Your task to perform on an android device: change the upload size in google photos Image 0: 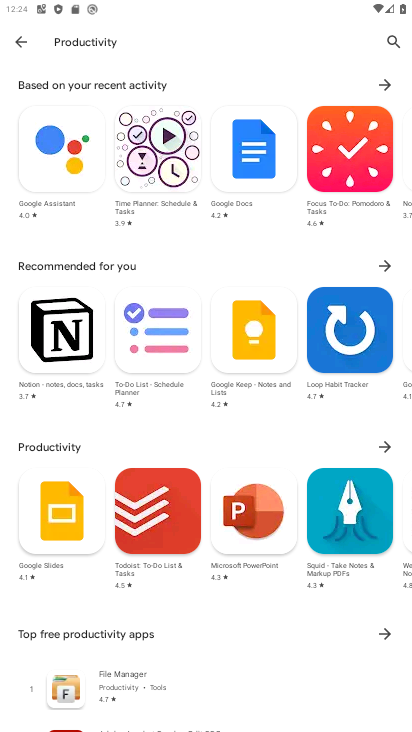
Step 0: press home button
Your task to perform on an android device: change the upload size in google photos Image 1: 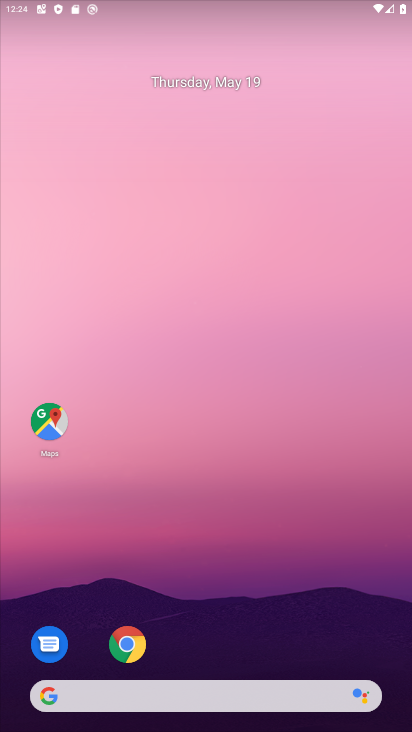
Step 1: drag from (319, 588) to (264, 237)
Your task to perform on an android device: change the upload size in google photos Image 2: 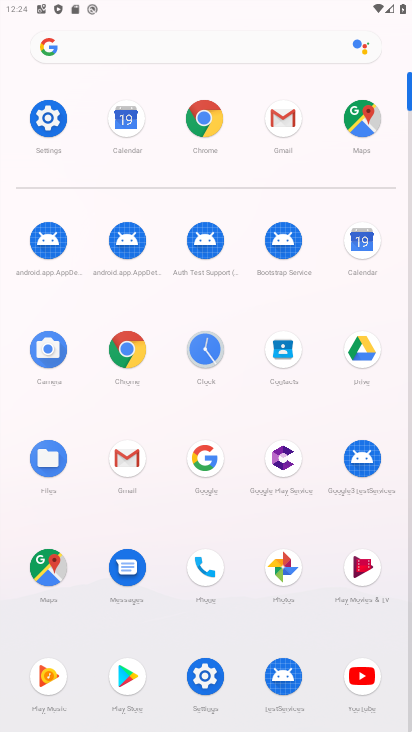
Step 2: click (280, 582)
Your task to perform on an android device: change the upload size in google photos Image 3: 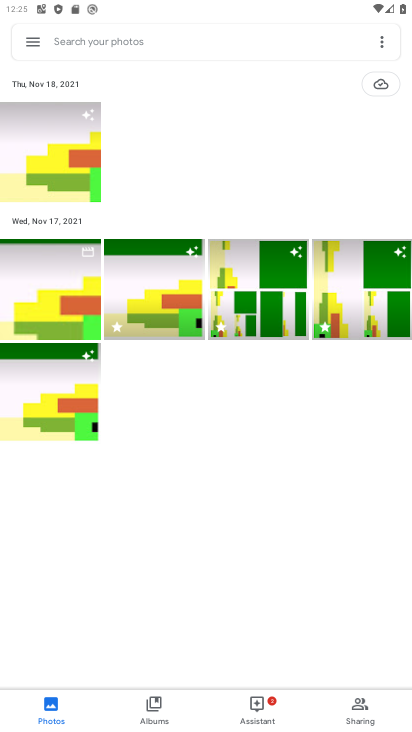
Step 3: click (19, 38)
Your task to perform on an android device: change the upload size in google photos Image 4: 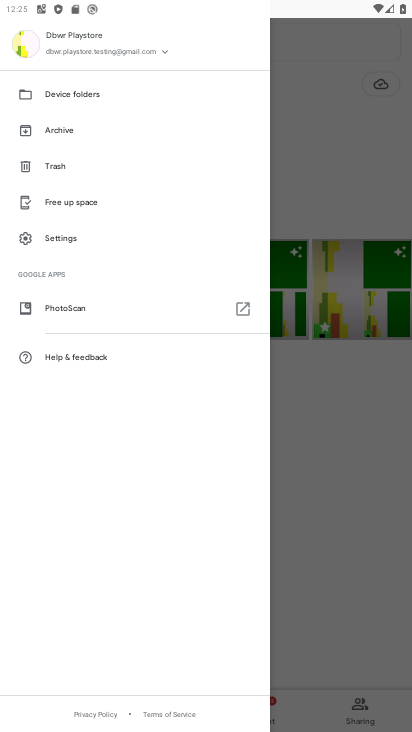
Step 4: click (80, 236)
Your task to perform on an android device: change the upload size in google photos Image 5: 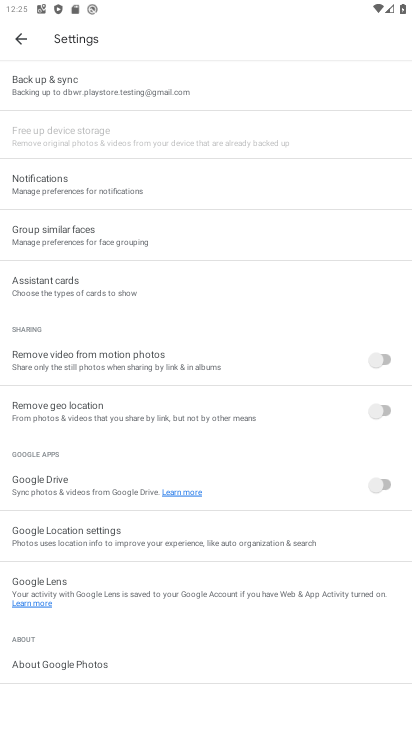
Step 5: click (162, 96)
Your task to perform on an android device: change the upload size in google photos Image 6: 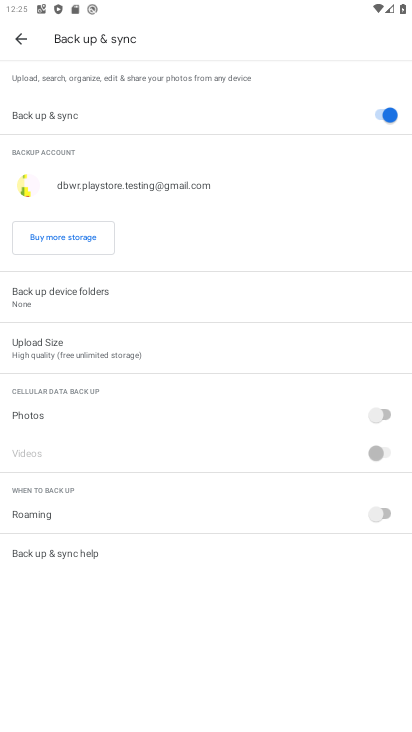
Step 6: click (120, 356)
Your task to perform on an android device: change the upload size in google photos Image 7: 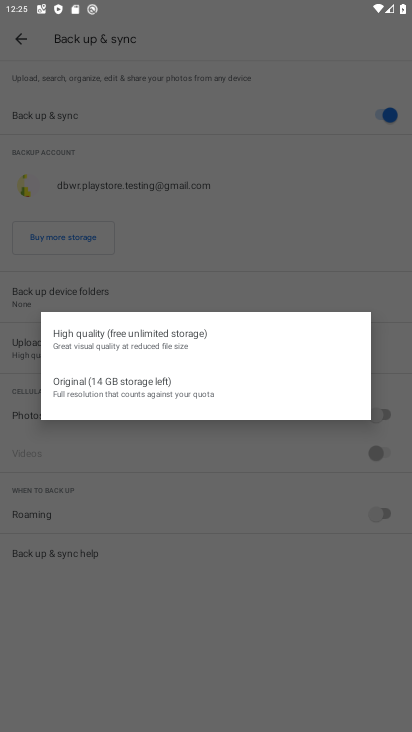
Step 7: click (143, 389)
Your task to perform on an android device: change the upload size in google photos Image 8: 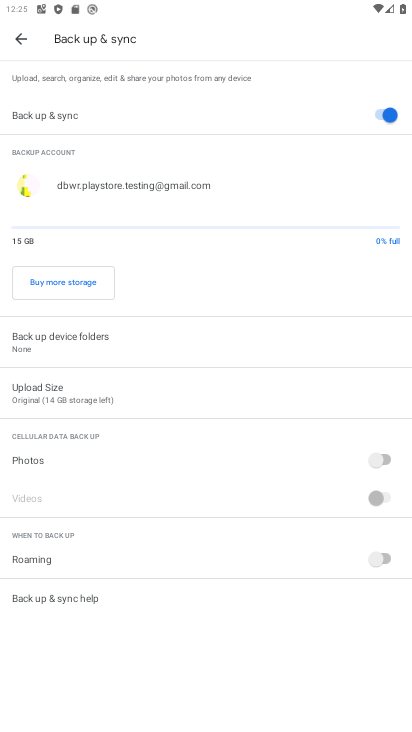
Step 8: task complete